Your task to perform on an android device: Check the news Image 0: 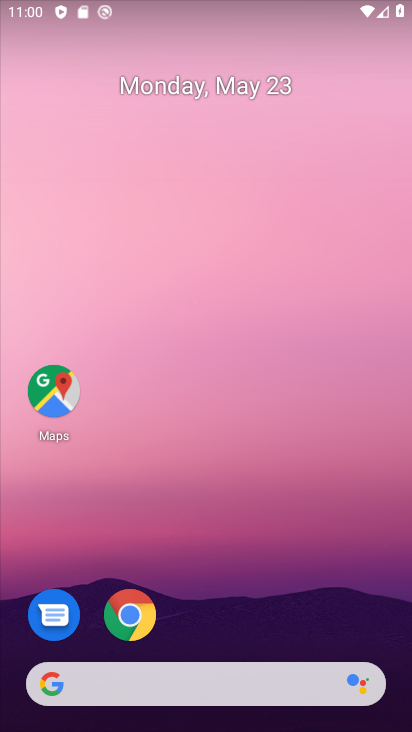
Step 0: click (224, 681)
Your task to perform on an android device: Check the news Image 1: 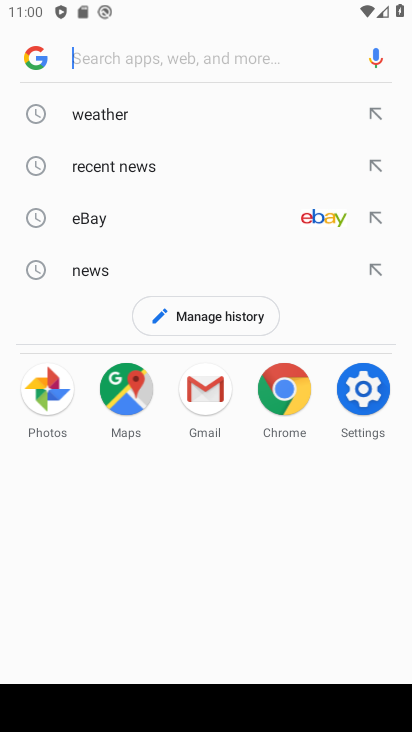
Step 1: click (62, 263)
Your task to perform on an android device: Check the news Image 2: 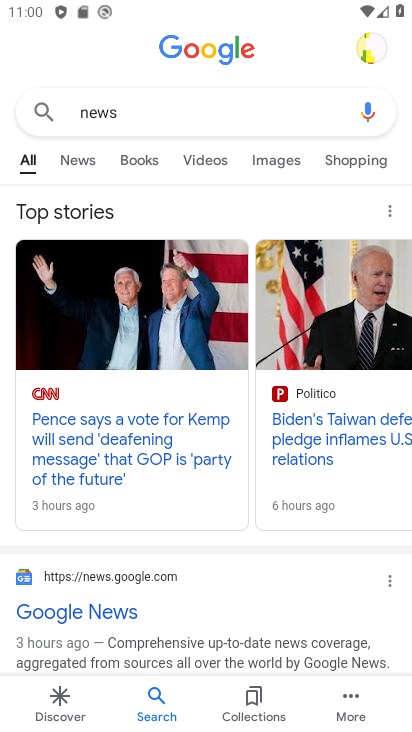
Step 2: task complete